Your task to perform on an android device: Open Amazon Image 0: 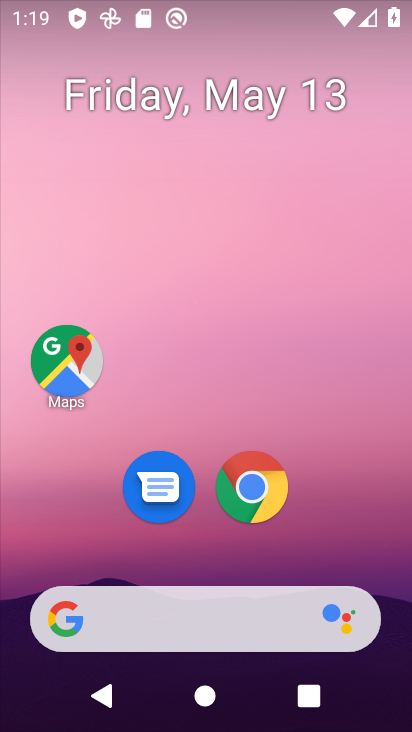
Step 0: drag from (390, 556) to (409, 87)
Your task to perform on an android device: Open Amazon Image 1: 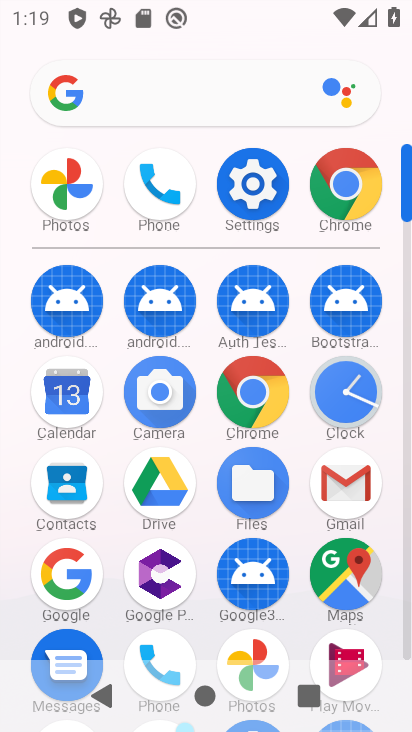
Step 1: click (255, 356)
Your task to perform on an android device: Open Amazon Image 2: 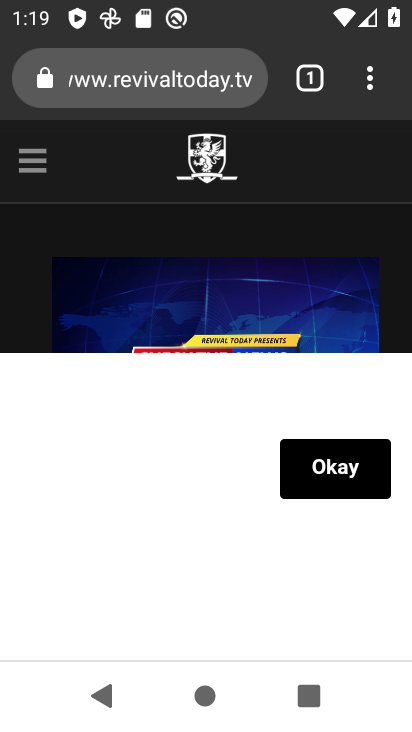
Step 2: click (308, 91)
Your task to perform on an android device: Open Amazon Image 3: 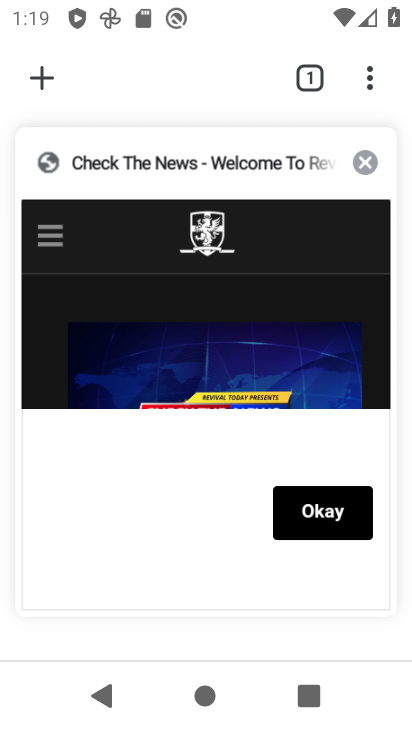
Step 3: click (47, 78)
Your task to perform on an android device: Open Amazon Image 4: 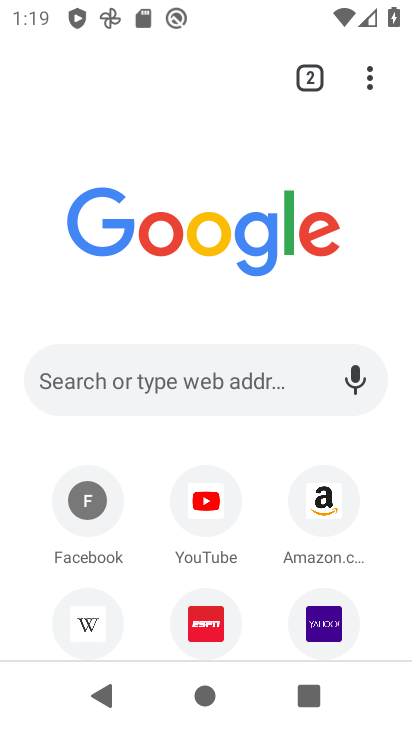
Step 4: click (342, 486)
Your task to perform on an android device: Open Amazon Image 5: 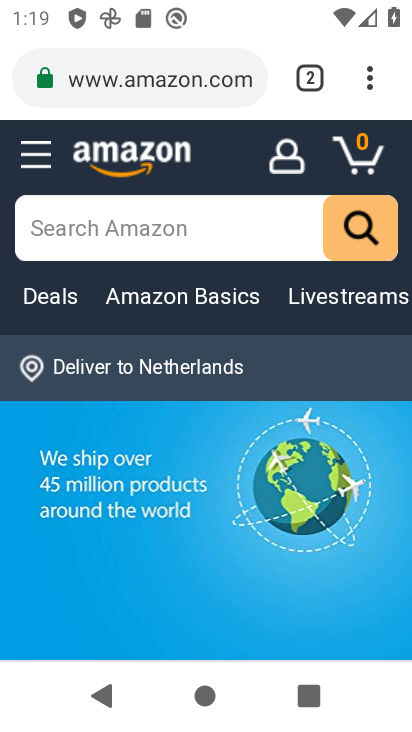
Step 5: task complete